Your task to perform on an android device: open a bookmark in the chrome app Image 0: 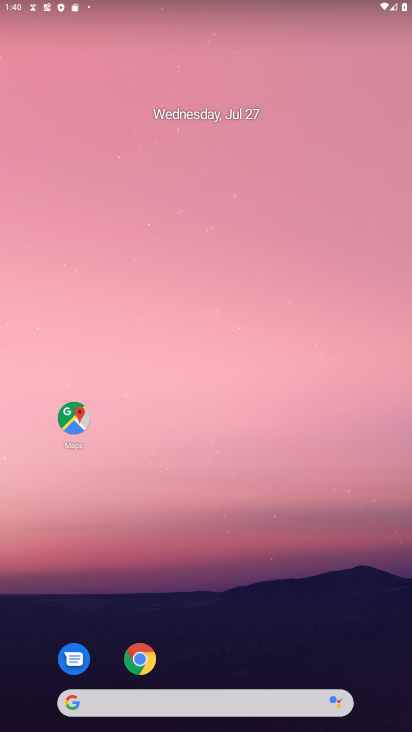
Step 0: click (137, 656)
Your task to perform on an android device: open a bookmark in the chrome app Image 1: 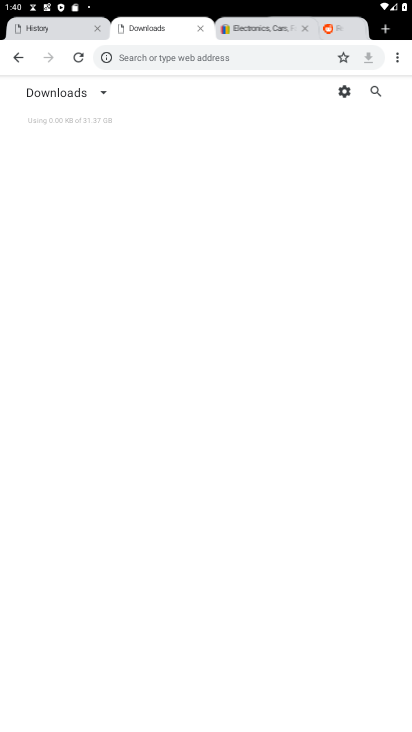
Step 1: click (396, 63)
Your task to perform on an android device: open a bookmark in the chrome app Image 2: 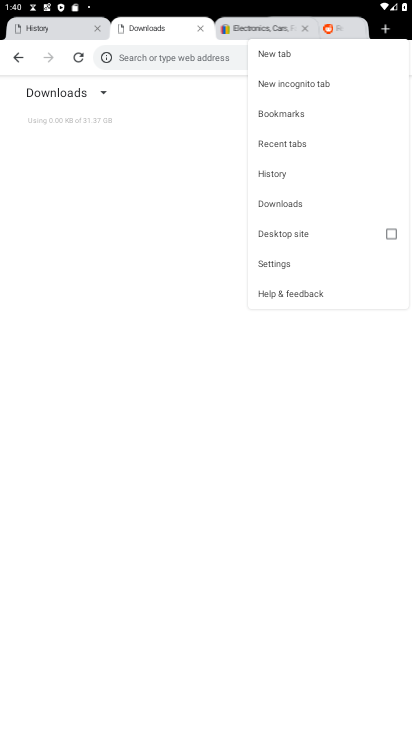
Step 2: click (305, 112)
Your task to perform on an android device: open a bookmark in the chrome app Image 3: 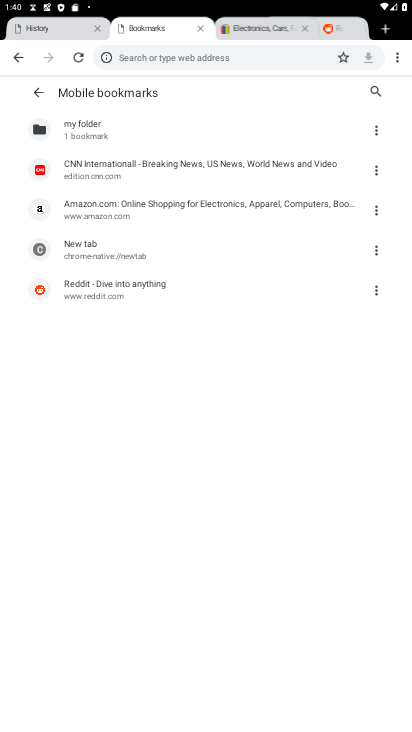
Step 3: click (107, 167)
Your task to perform on an android device: open a bookmark in the chrome app Image 4: 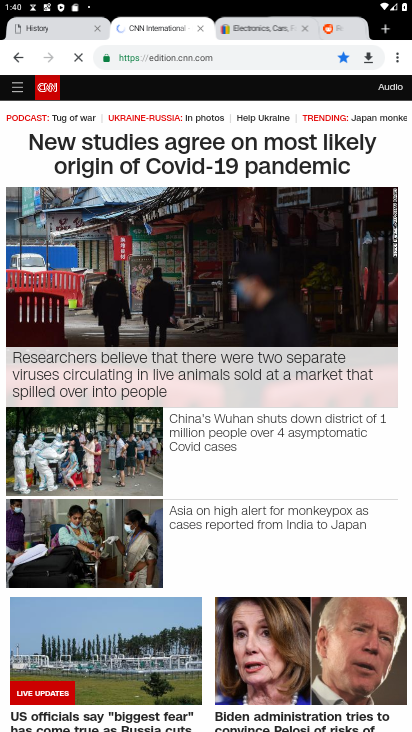
Step 4: task complete